Your task to perform on an android device: Clear the cart on ebay.com. Add "macbook pro 13 inch" to the cart on ebay.com, then select checkout. Image 0: 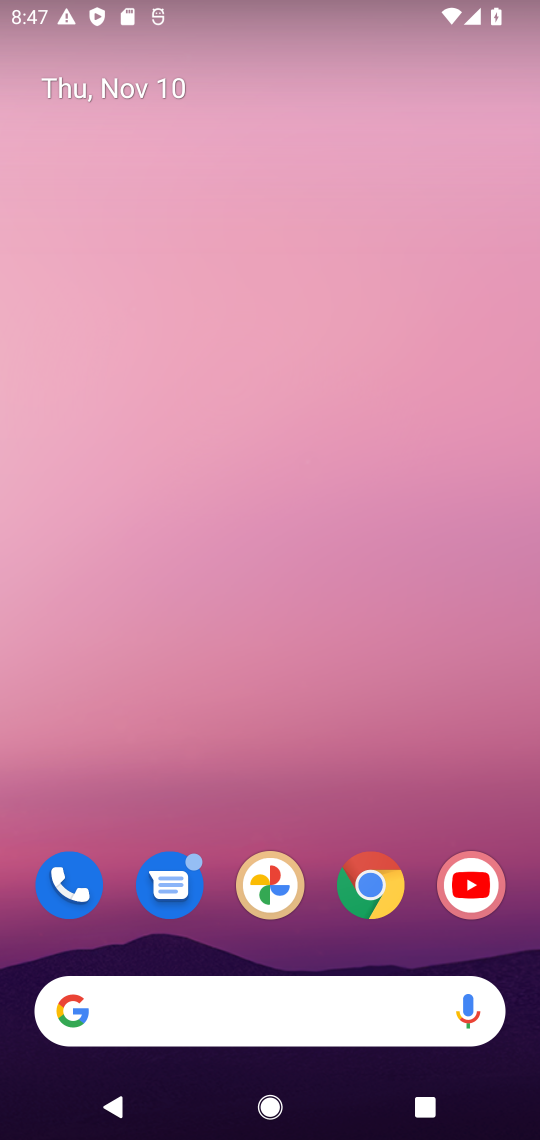
Step 0: click (363, 899)
Your task to perform on an android device: Clear the cart on ebay.com. Add "macbook pro 13 inch" to the cart on ebay.com, then select checkout. Image 1: 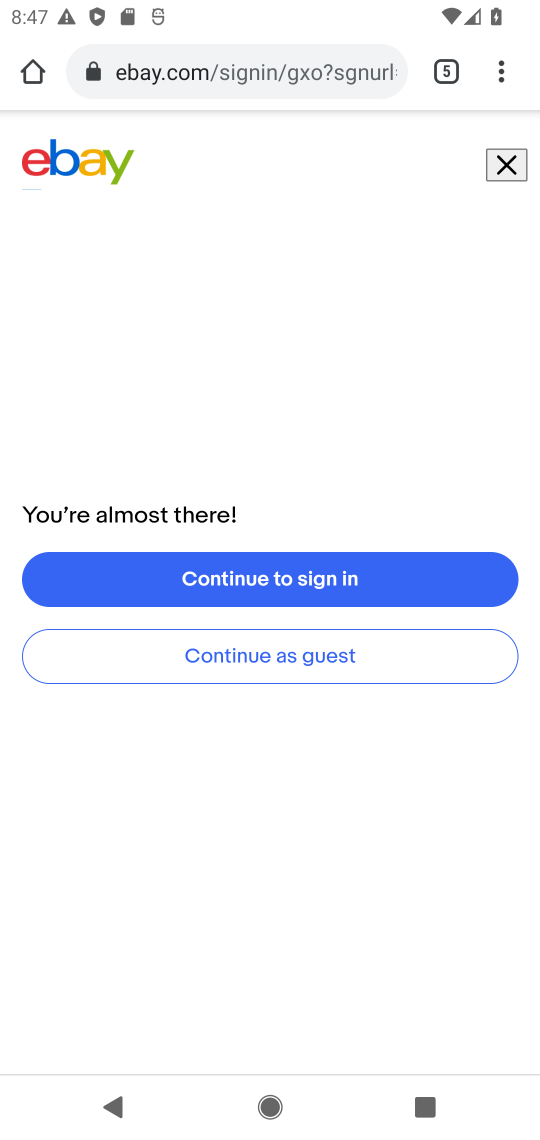
Step 1: click (514, 169)
Your task to perform on an android device: Clear the cart on ebay.com. Add "macbook pro 13 inch" to the cart on ebay.com, then select checkout. Image 2: 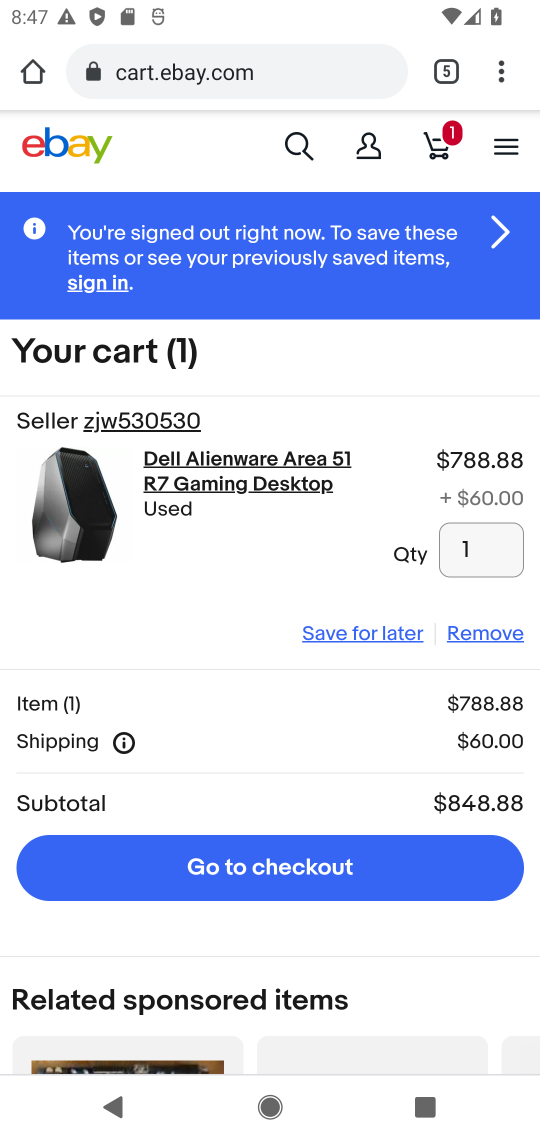
Step 2: click (486, 627)
Your task to perform on an android device: Clear the cart on ebay.com. Add "macbook pro 13 inch" to the cart on ebay.com, then select checkout. Image 3: 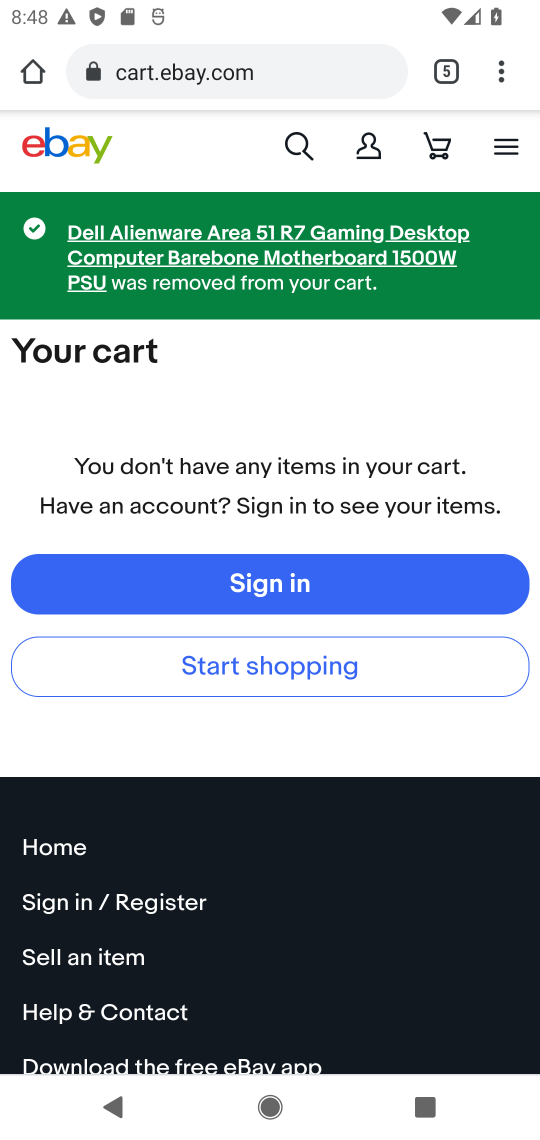
Step 3: click (291, 138)
Your task to perform on an android device: Clear the cart on ebay.com. Add "macbook pro 13 inch" to the cart on ebay.com, then select checkout. Image 4: 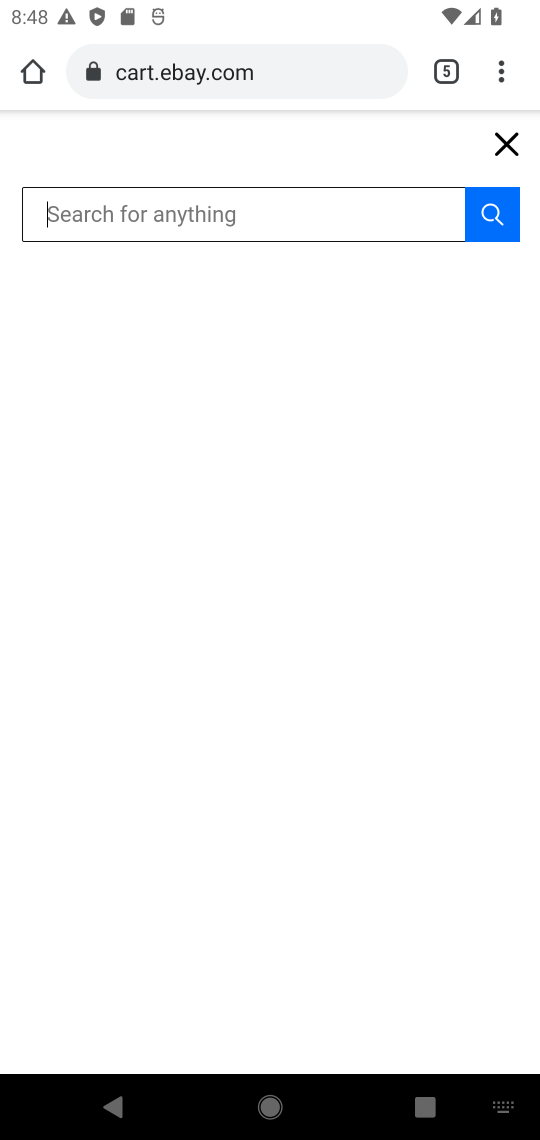
Step 4: type "macbook pro 13 inch"
Your task to perform on an android device: Clear the cart on ebay.com. Add "macbook pro 13 inch" to the cart on ebay.com, then select checkout. Image 5: 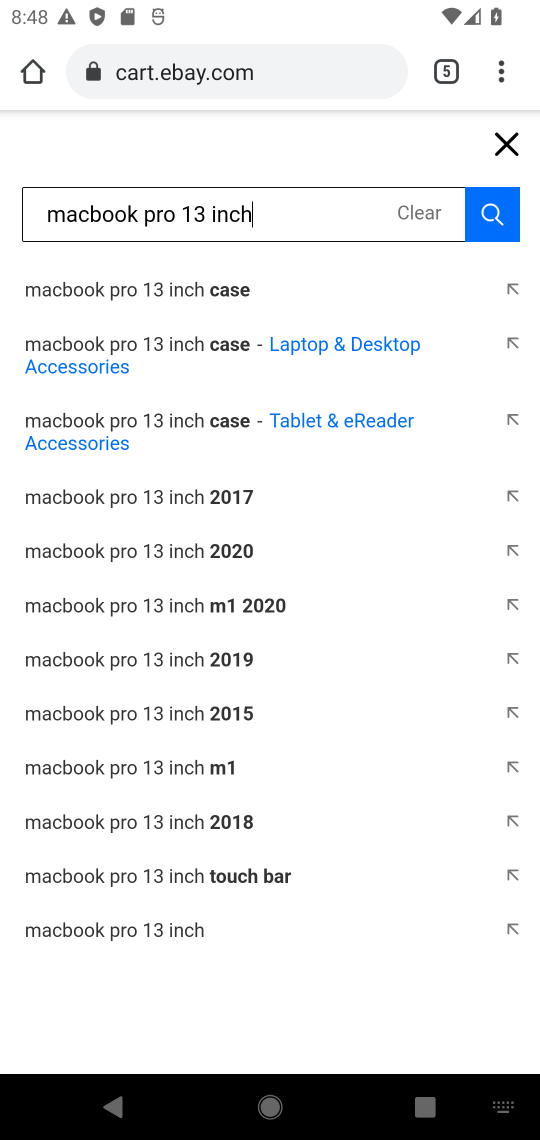
Step 5: click (181, 339)
Your task to perform on an android device: Clear the cart on ebay.com. Add "macbook pro 13 inch" to the cart on ebay.com, then select checkout. Image 6: 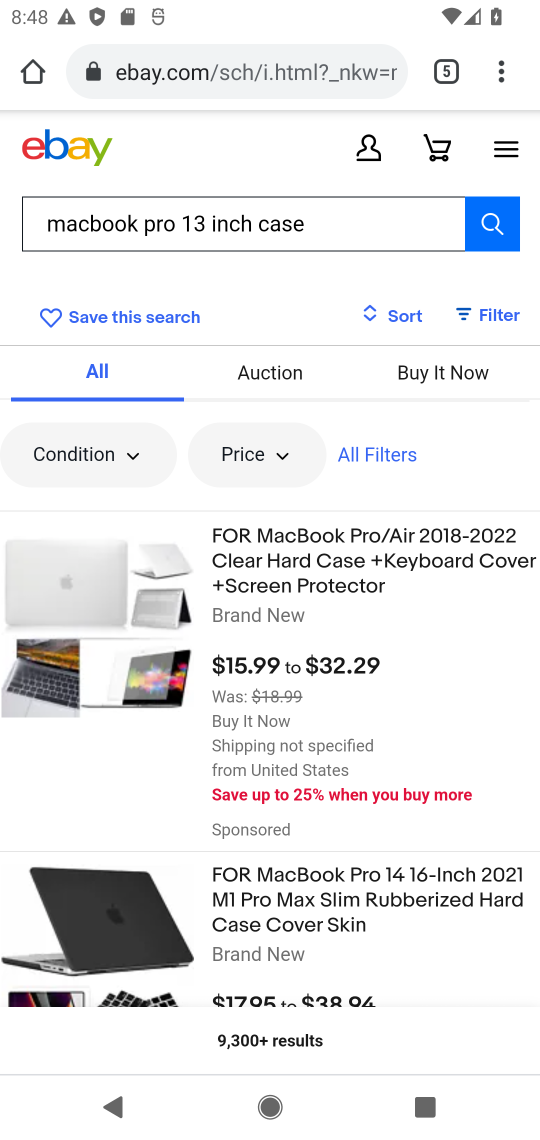
Step 6: click (387, 881)
Your task to perform on an android device: Clear the cart on ebay.com. Add "macbook pro 13 inch" to the cart on ebay.com, then select checkout. Image 7: 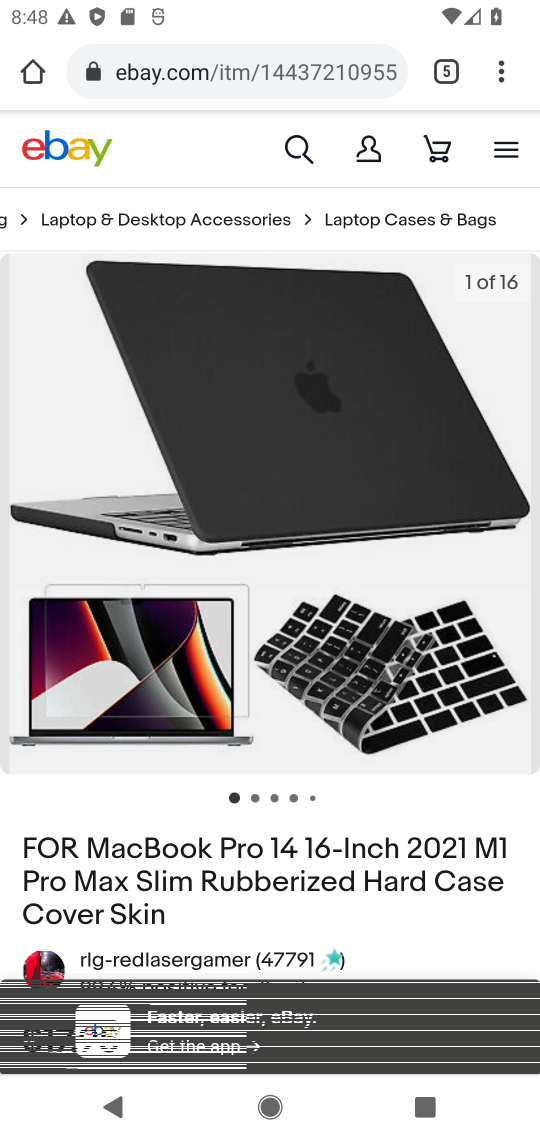
Step 7: drag from (387, 881) to (477, 420)
Your task to perform on an android device: Clear the cart on ebay.com. Add "macbook pro 13 inch" to the cart on ebay.com, then select checkout. Image 8: 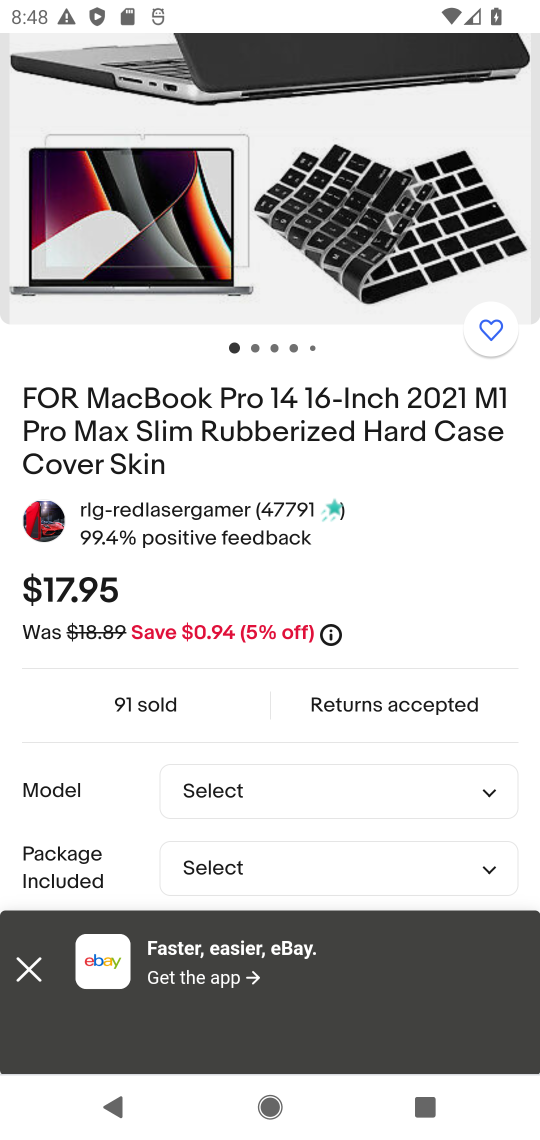
Step 8: drag from (344, 868) to (419, 313)
Your task to perform on an android device: Clear the cart on ebay.com. Add "macbook pro 13 inch" to the cart on ebay.com, then select checkout. Image 9: 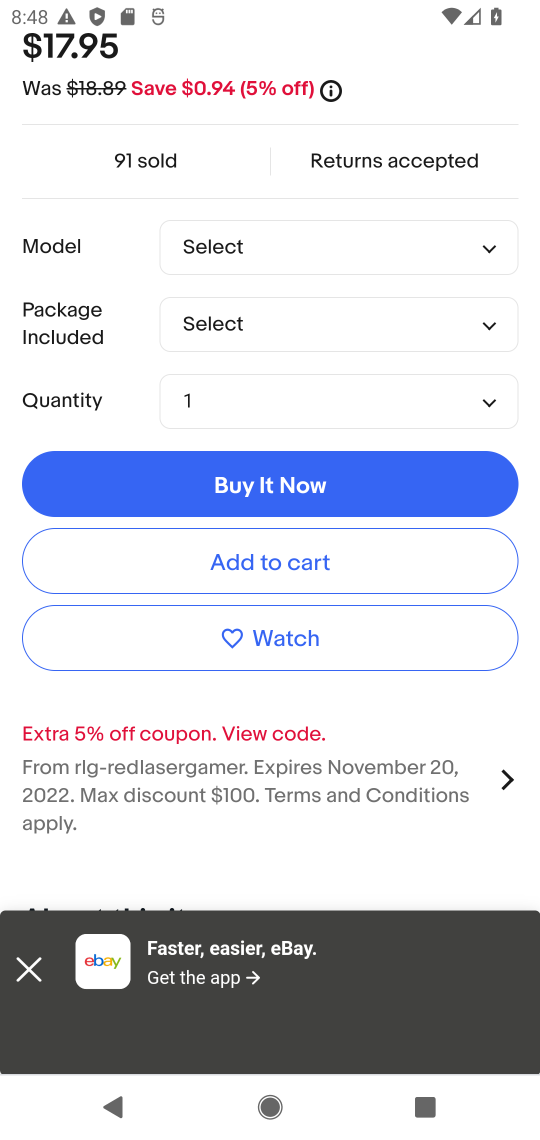
Step 9: click (385, 555)
Your task to perform on an android device: Clear the cart on ebay.com. Add "macbook pro 13 inch" to the cart on ebay.com, then select checkout. Image 10: 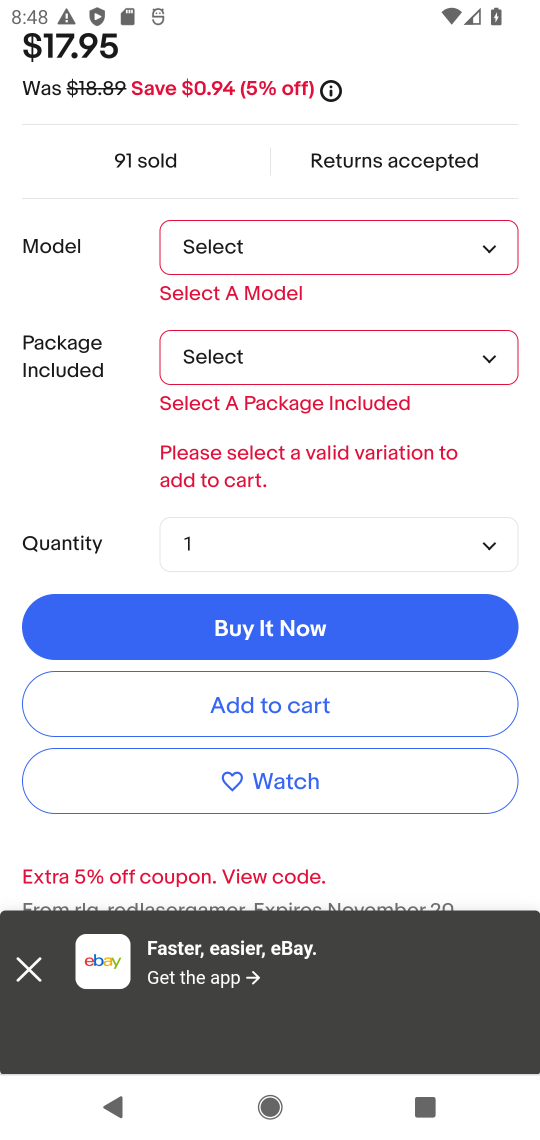
Step 10: click (481, 232)
Your task to perform on an android device: Clear the cart on ebay.com. Add "macbook pro 13 inch" to the cart on ebay.com, then select checkout. Image 11: 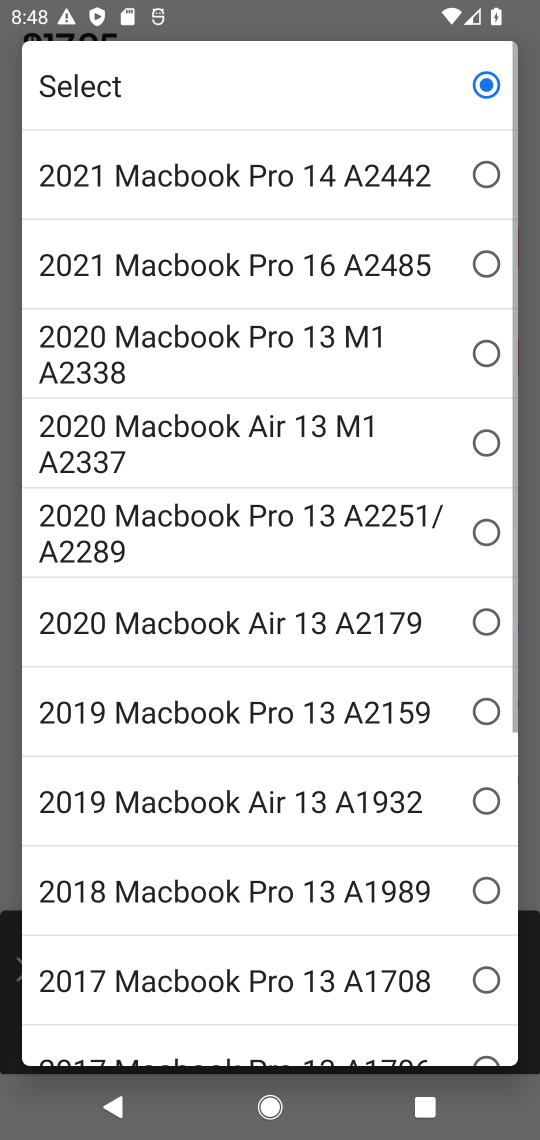
Step 11: click (480, 243)
Your task to perform on an android device: Clear the cart on ebay.com. Add "macbook pro 13 inch" to the cart on ebay.com, then select checkout. Image 12: 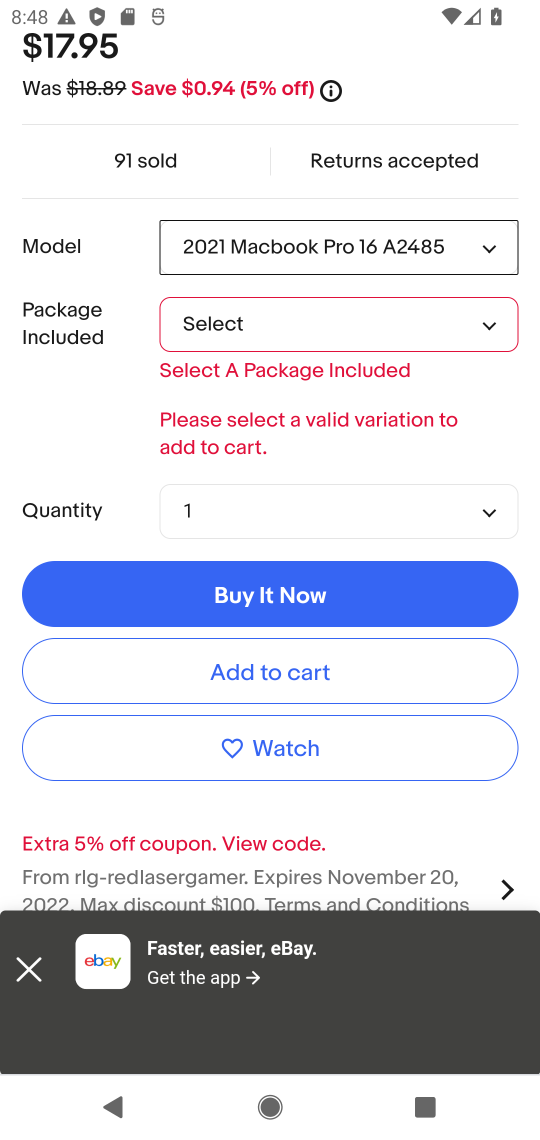
Step 12: click (488, 329)
Your task to perform on an android device: Clear the cart on ebay.com. Add "macbook pro 13 inch" to the cart on ebay.com, then select checkout. Image 13: 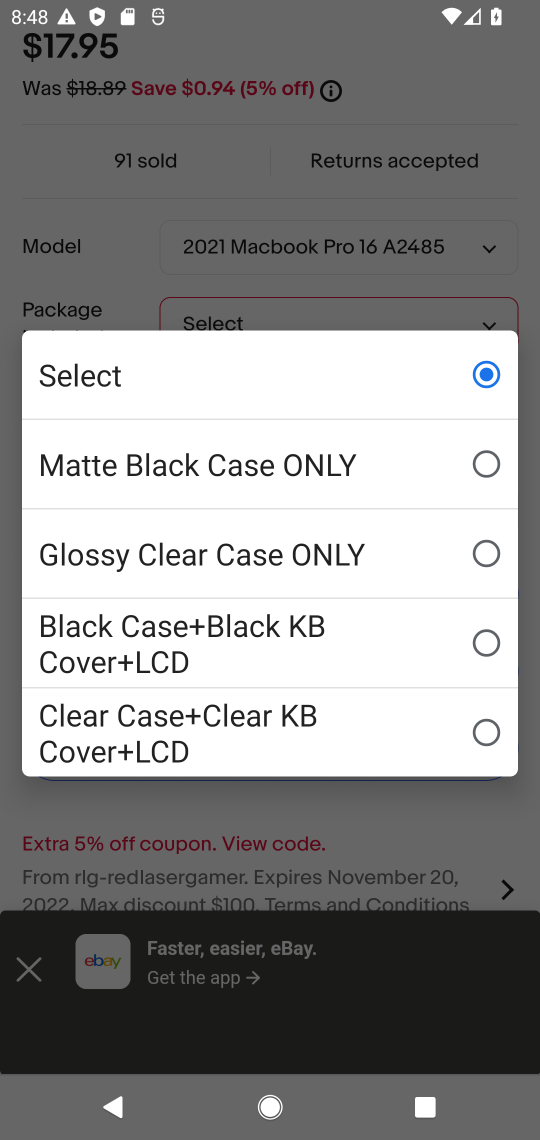
Step 13: click (484, 465)
Your task to perform on an android device: Clear the cart on ebay.com. Add "macbook pro 13 inch" to the cart on ebay.com, then select checkout. Image 14: 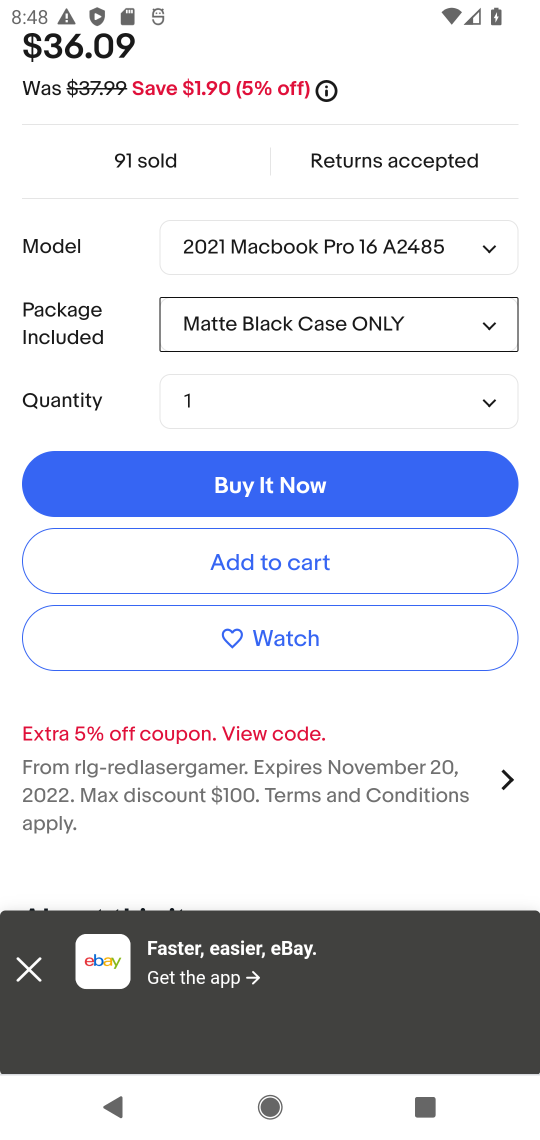
Step 14: click (402, 575)
Your task to perform on an android device: Clear the cart on ebay.com. Add "macbook pro 13 inch" to the cart on ebay.com, then select checkout. Image 15: 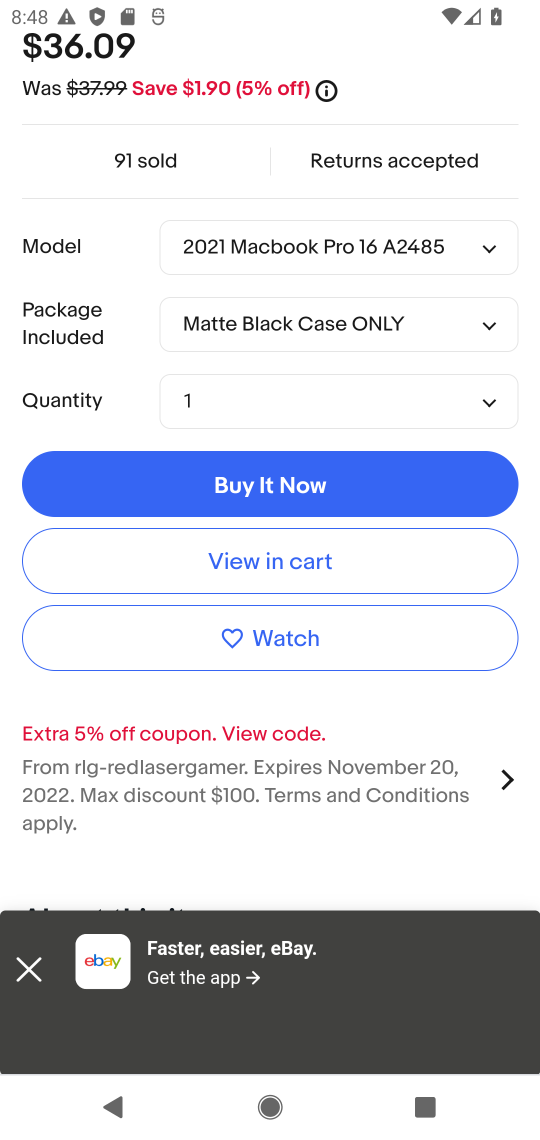
Step 15: click (362, 570)
Your task to perform on an android device: Clear the cart on ebay.com. Add "macbook pro 13 inch" to the cart on ebay.com, then select checkout. Image 16: 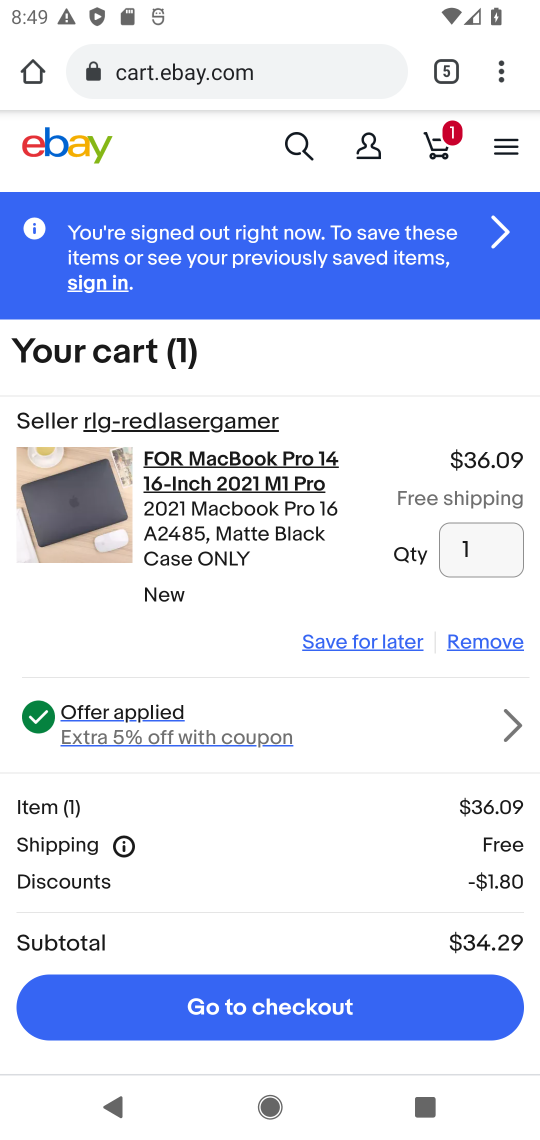
Step 16: click (371, 999)
Your task to perform on an android device: Clear the cart on ebay.com. Add "macbook pro 13 inch" to the cart on ebay.com, then select checkout. Image 17: 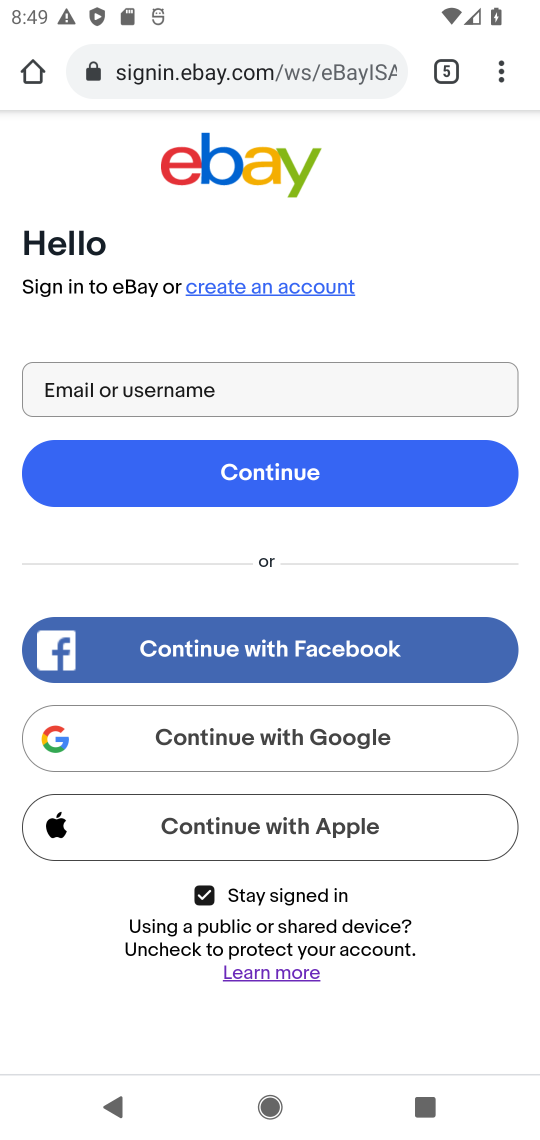
Step 17: task complete